Your task to perform on an android device: make emails show in primary in the gmail app Image 0: 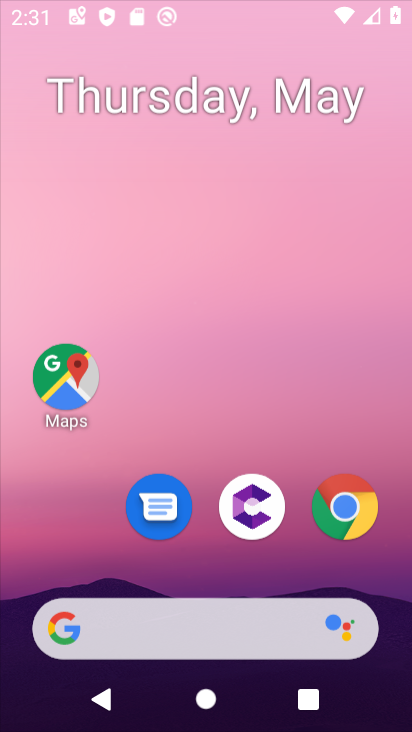
Step 0: press home button
Your task to perform on an android device: make emails show in primary in the gmail app Image 1: 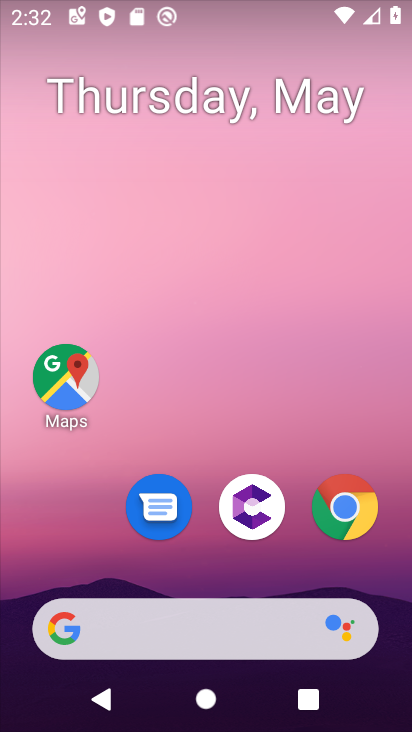
Step 1: drag from (260, 572) to (281, 307)
Your task to perform on an android device: make emails show in primary in the gmail app Image 2: 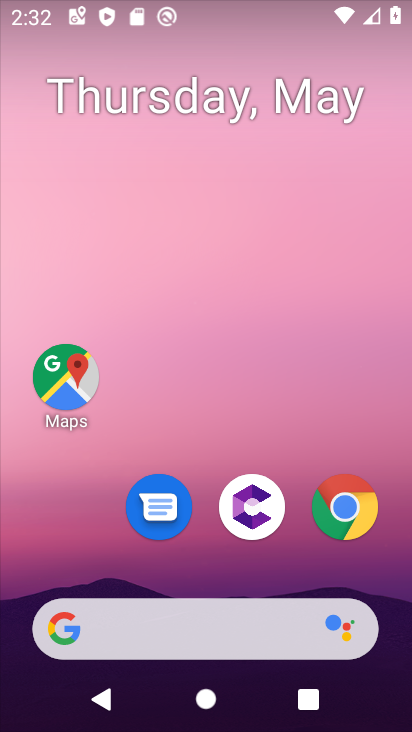
Step 2: drag from (283, 578) to (276, 348)
Your task to perform on an android device: make emails show in primary in the gmail app Image 3: 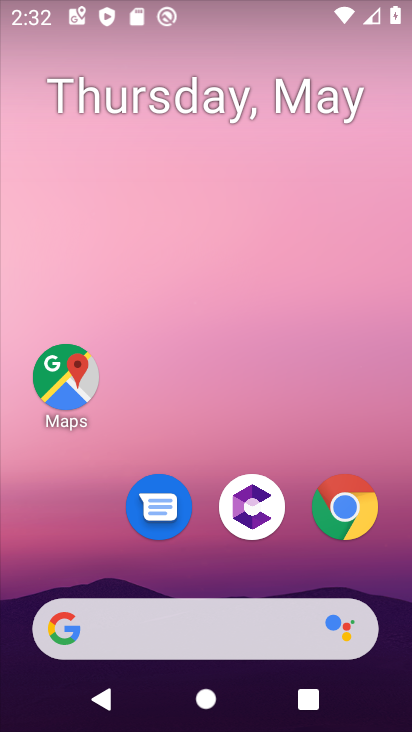
Step 3: drag from (293, 565) to (279, 141)
Your task to perform on an android device: make emails show in primary in the gmail app Image 4: 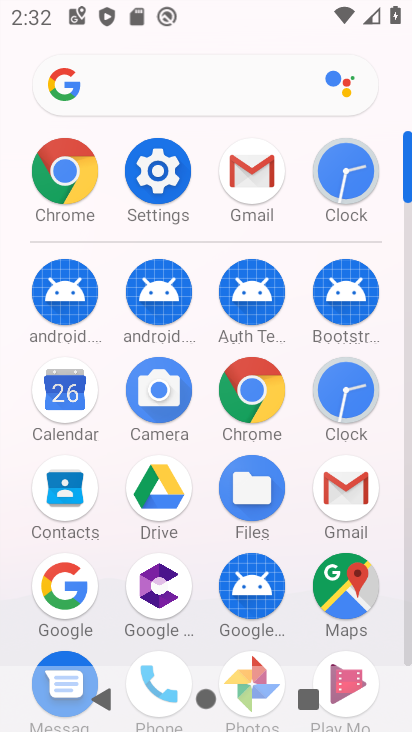
Step 4: click (245, 177)
Your task to perform on an android device: make emails show in primary in the gmail app Image 5: 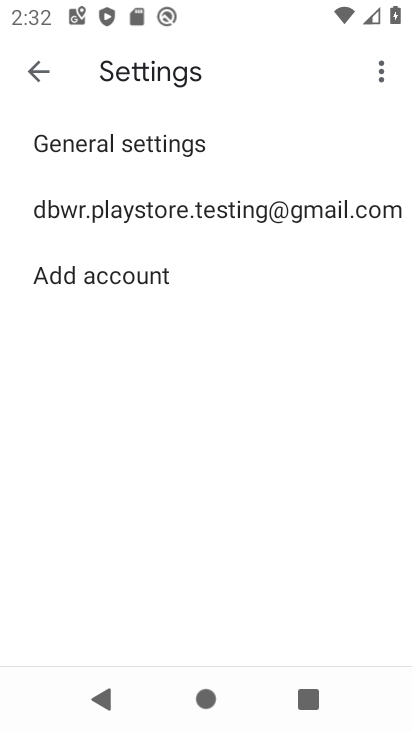
Step 5: click (134, 214)
Your task to perform on an android device: make emails show in primary in the gmail app Image 6: 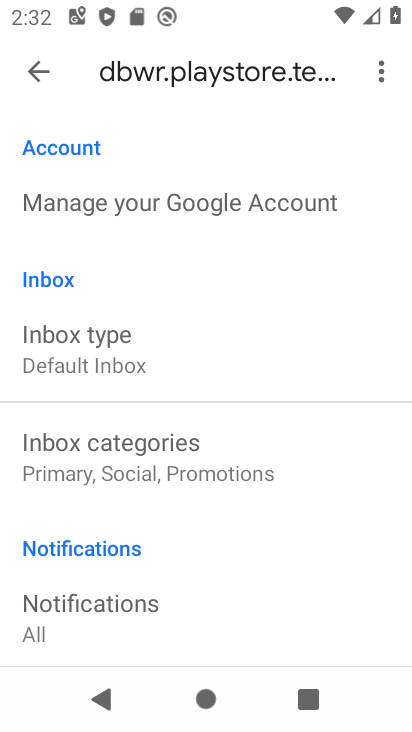
Step 6: click (102, 446)
Your task to perform on an android device: make emails show in primary in the gmail app Image 7: 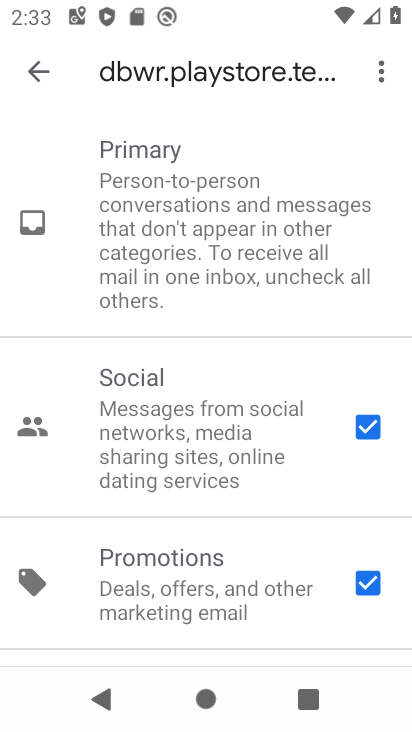
Step 7: click (369, 428)
Your task to perform on an android device: make emails show in primary in the gmail app Image 8: 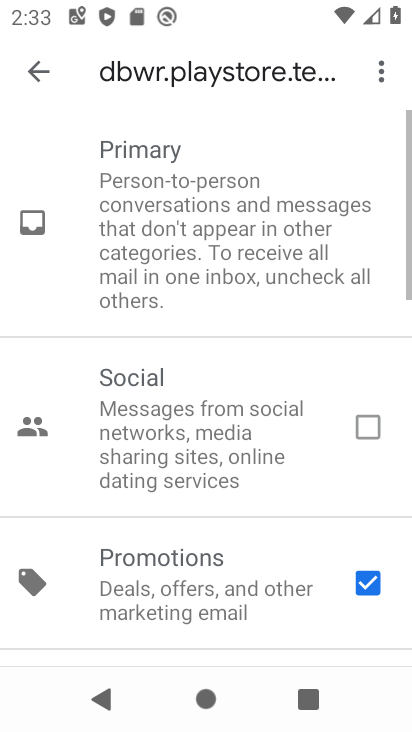
Step 8: click (371, 587)
Your task to perform on an android device: make emails show in primary in the gmail app Image 9: 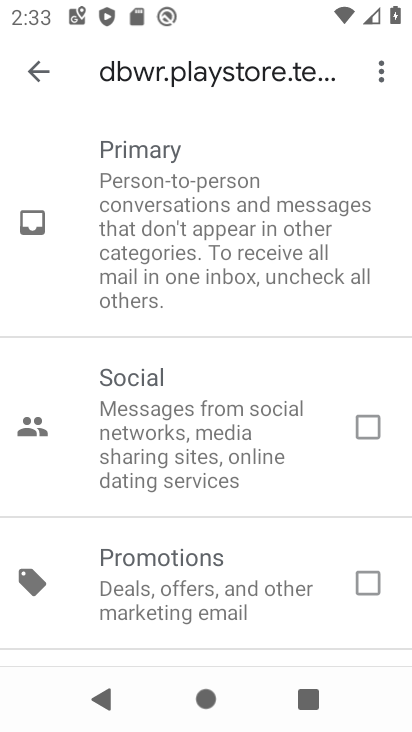
Step 9: drag from (293, 597) to (304, 167)
Your task to perform on an android device: make emails show in primary in the gmail app Image 10: 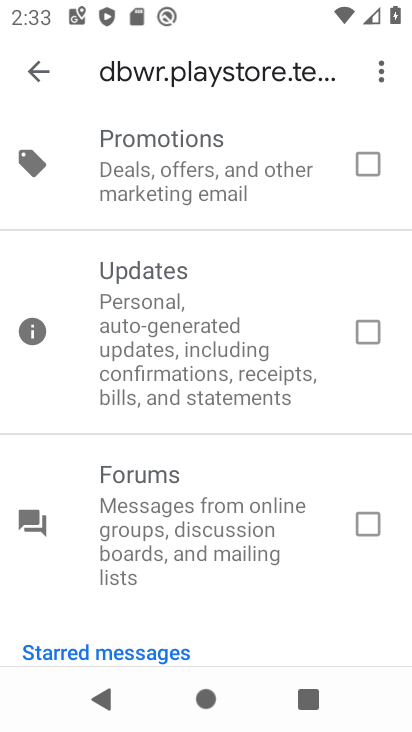
Step 10: drag from (259, 591) to (256, 263)
Your task to perform on an android device: make emails show in primary in the gmail app Image 11: 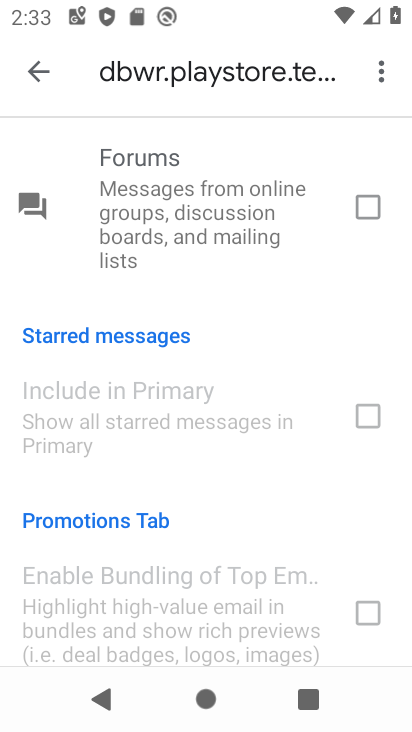
Step 11: drag from (300, 503) to (313, 224)
Your task to perform on an android device: make emails show in primary in the gmail app Image 12: 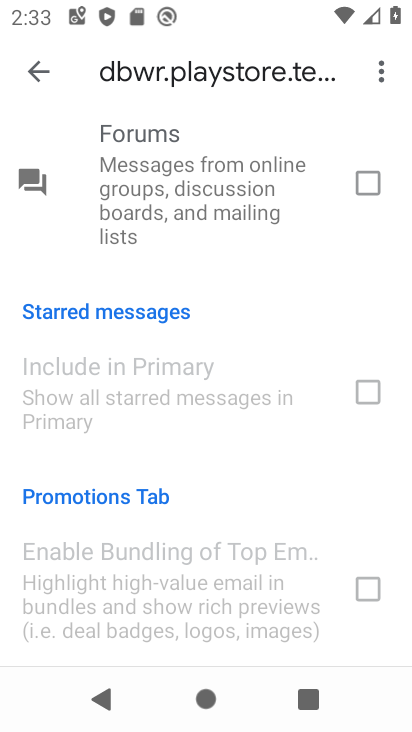
Step 12: drag from (265, 275) to (151, 710)
Your task to perform on an android device: make emails show in primary in the gmail app Image 13: 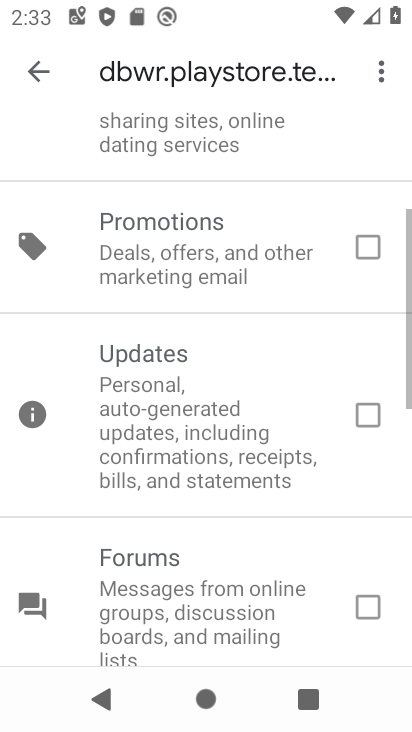
Step 13: drag from (272, 138) to (189, 702)
Your task to perform on an android device: make emails show in primary in the gmail app Image 14: 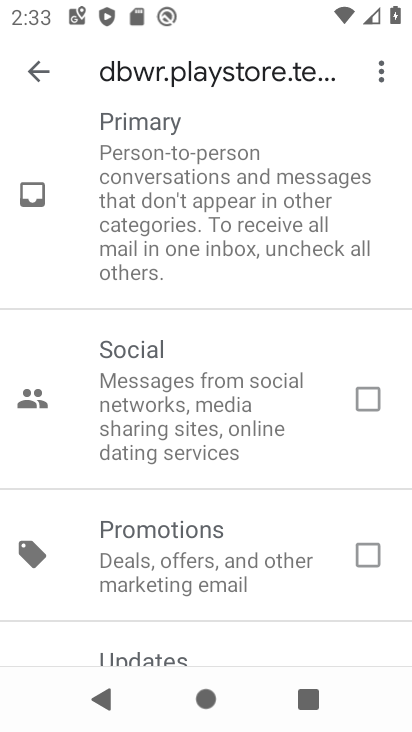
Step 14: click (150, 122)
Your task to perform on an android device: make emails show in primary in the gmail app Image 15: 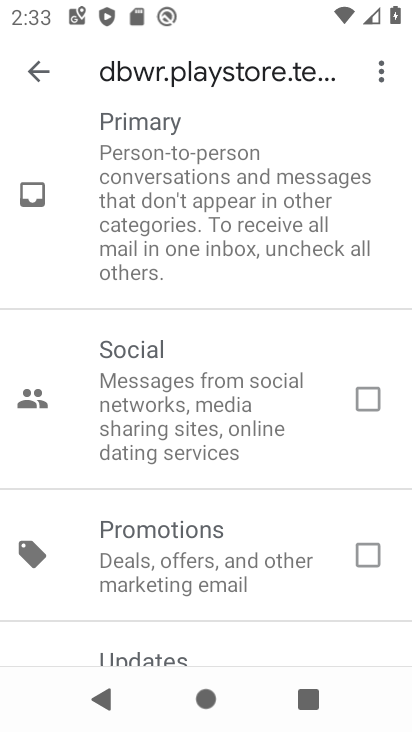
Step 15: task complete